Your task to perform on an android device: Open Google Image 0: 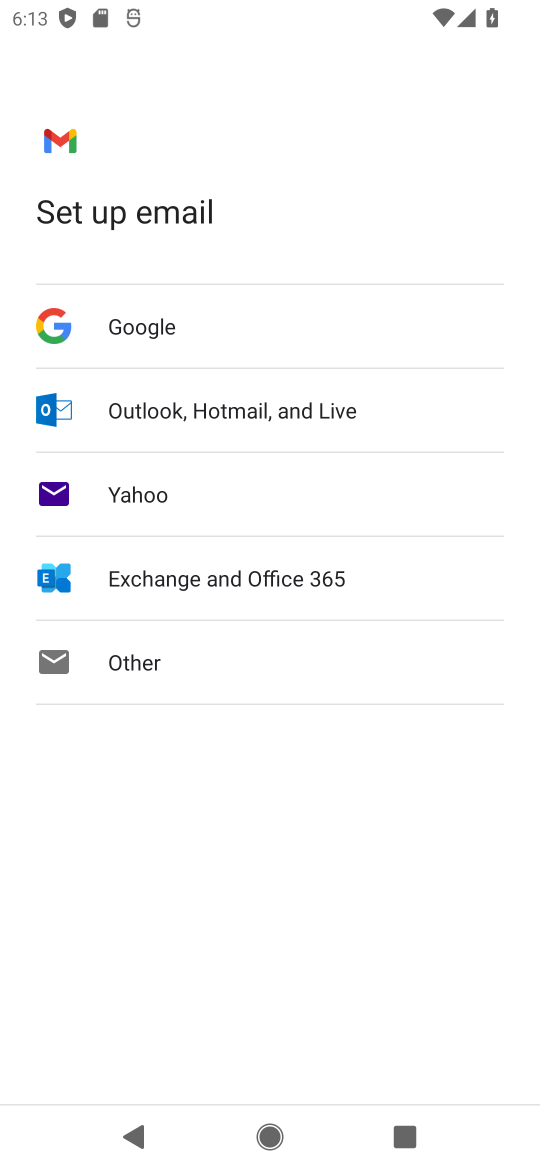
Step 0: press home button
Your task to perform on an android device: Open Google Image 1: 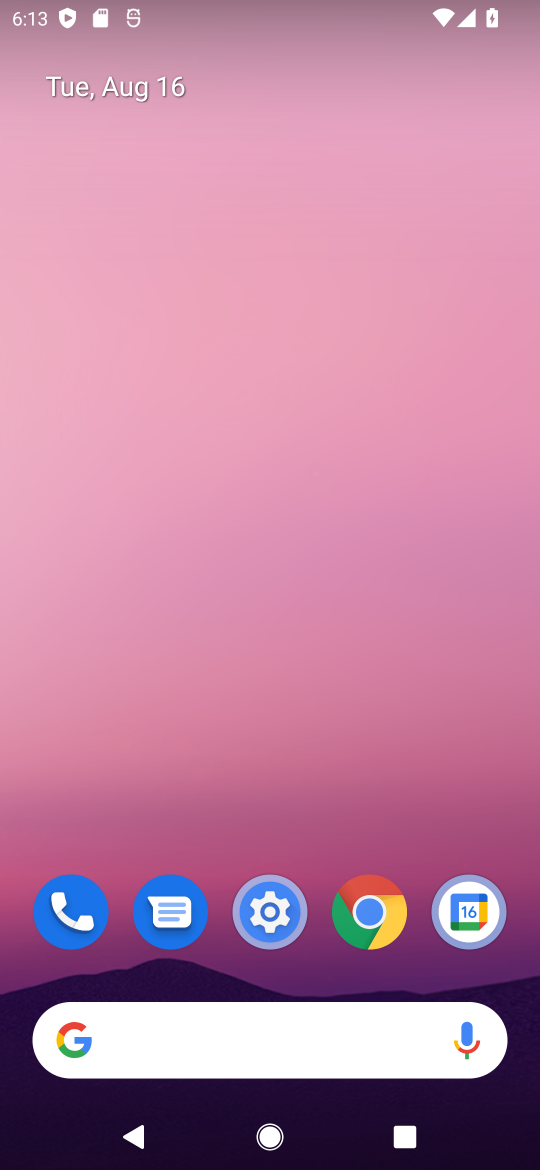
Step 1: click (368, 914)
Your task to perform on an android device: Open Google Image 2: 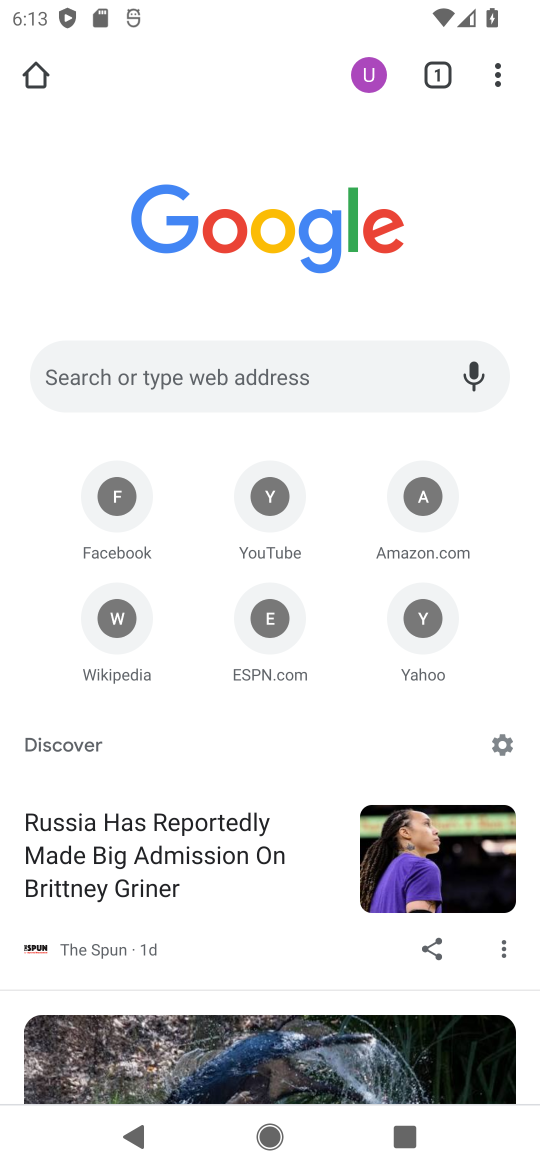
Step 2: task complete